Your task to perform on an android device: Go to location settings Image 0: 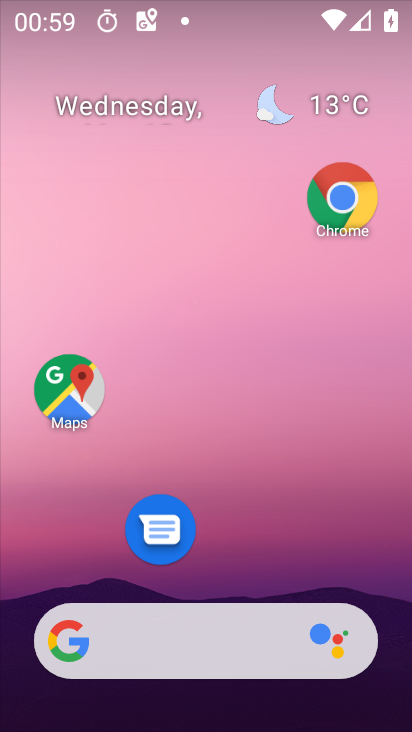
Step 0: drag from (223, 558) to (206, 160)
Your task to perform on an android device: Go to location settings Image 1: 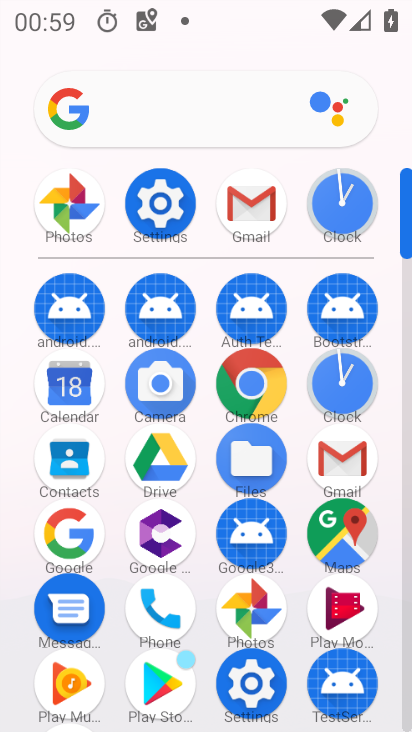
Step 1: click (162, 214)
Your task to perform on an android device: Go to location settings Image 2: 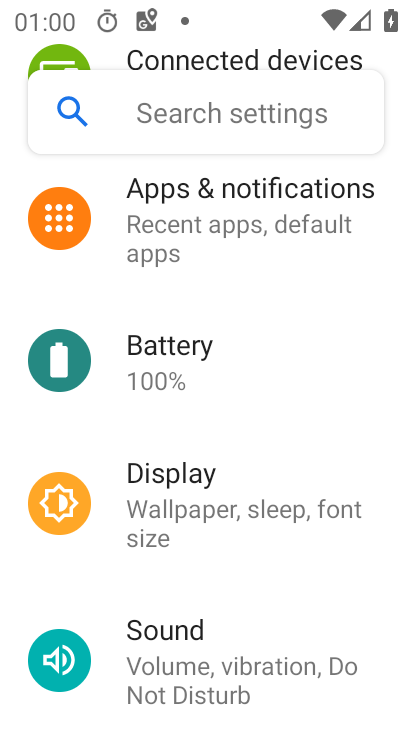
Step 2: drag from (187, 613) to (199, 298)
Your task to perform on an android device: Go to location settings Image 3: 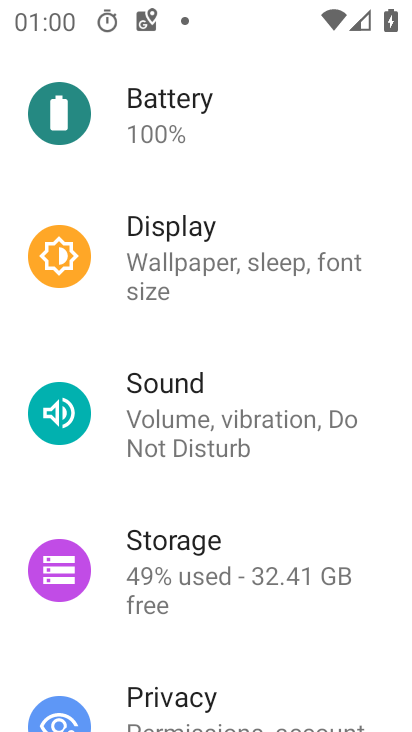
Step 3: drag from (162, 525) to (184, 306)
Your task to perform on an android device: Go to location settings Image 4: 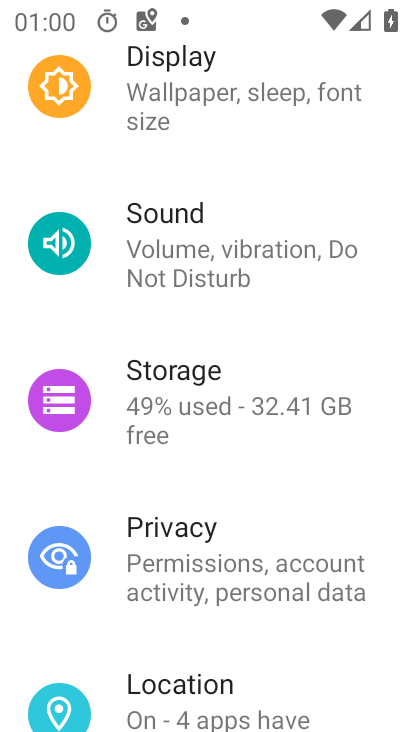
Step 4: click (132, 707)
Your task to perform on an android device: Go to location settings Image 5: 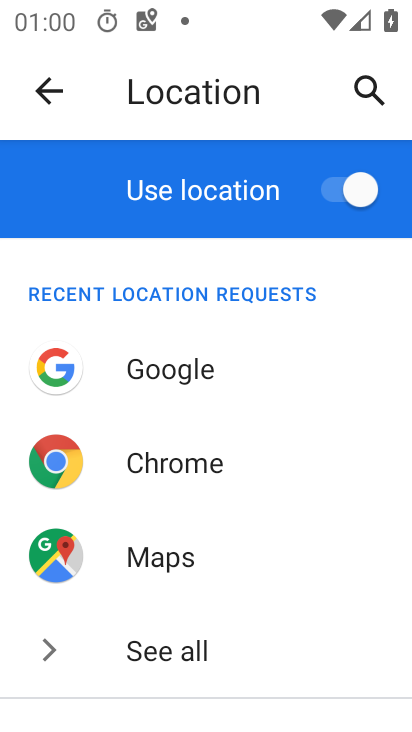
Step 5: task complete